Your task to perform on an android device: Search for sushi restaurants on Maps Image 0: 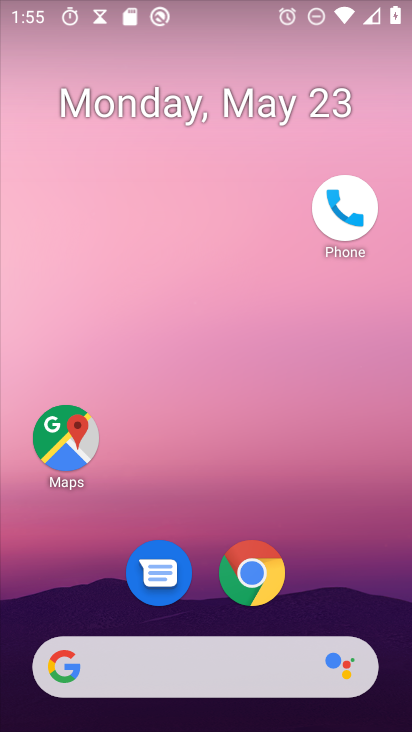
Step 0: press home button
Your task to perform on an android device: Search for sushi restaurants on Maps Image 1: 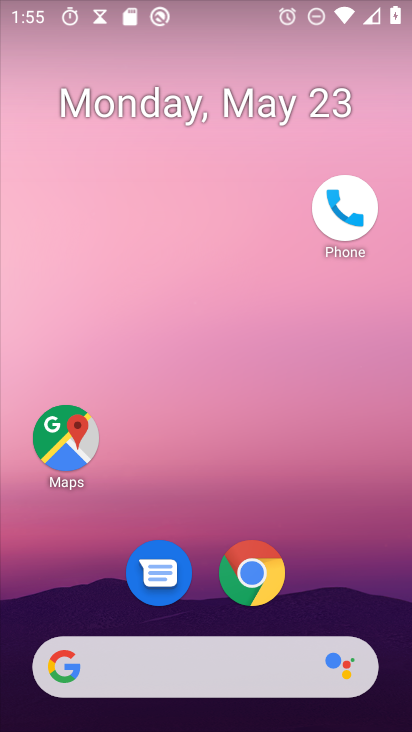
Step 1: click (67, 453)
Your task to perform on an android device: Search for sushi restaurants on Maps Image 2: 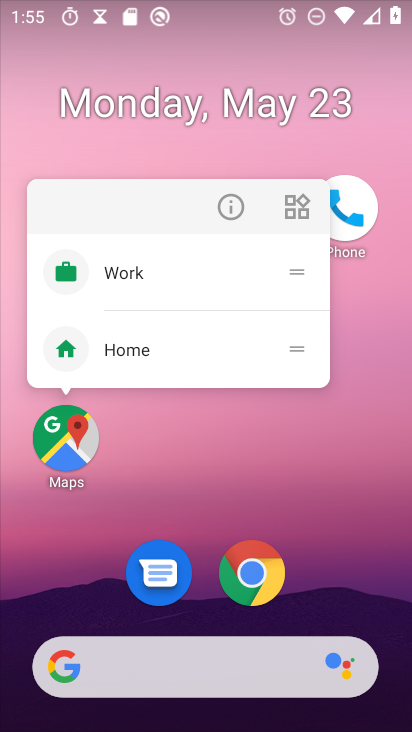
Step 2: click (61, 450)
Your task to perform on an android device: Search for sushi restaurants on Maps Image 3: 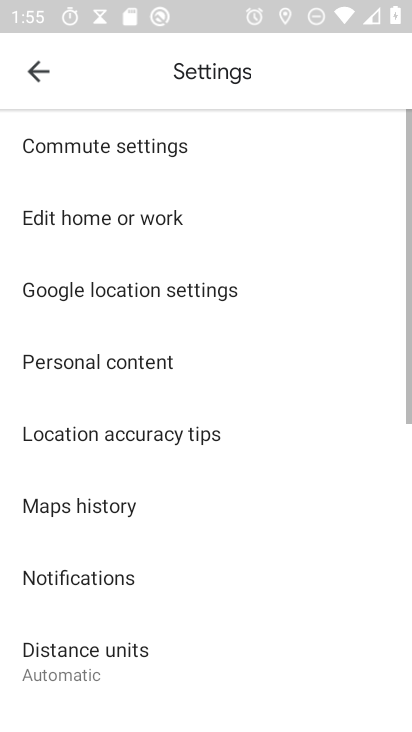
Step 3: click (34, 74)
Your task to perform on an android device: Search for sushi restaurants on Maps Image 4: 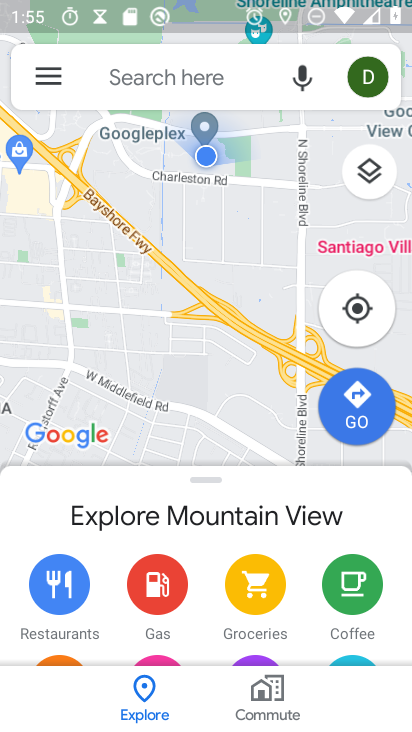
Step 4: click (176, 78)
Your task to perform on an android device: Search for sushi restaurants on Maps Image 5: 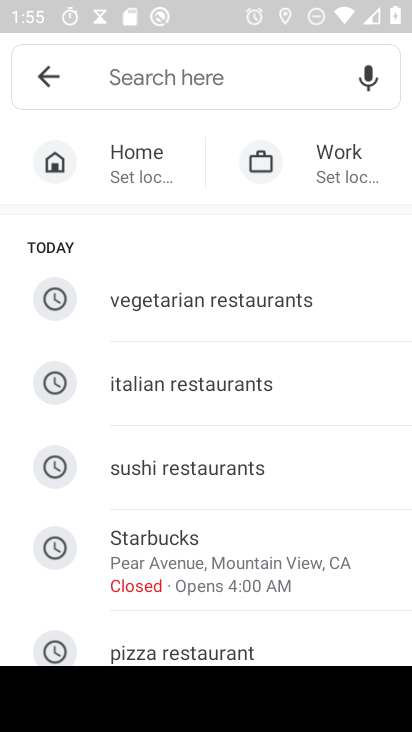
Step 5: click (226, 469)
Your task to perform on an android device: Search for sushi restaurants on Maps Image 6: 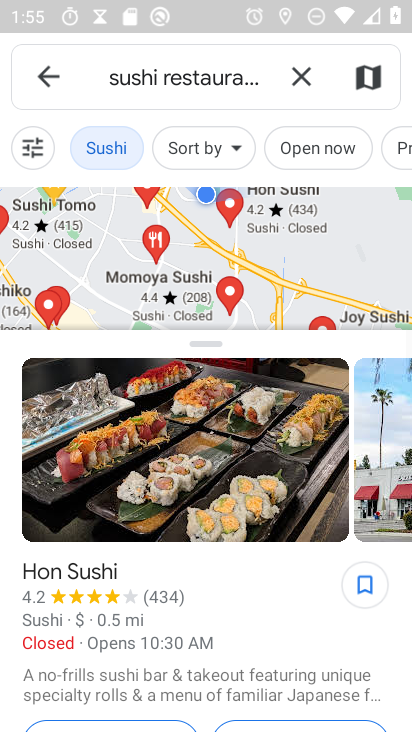
Step 6: task complete